Your task to perform on an android device: Is it going to rain today? Image 0: 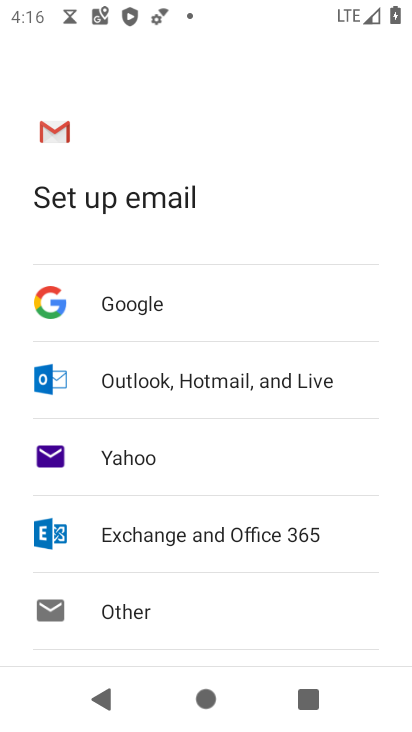
Step 0: press home button
Your task to perform on an android device: Is it going to rain today? Image 1: 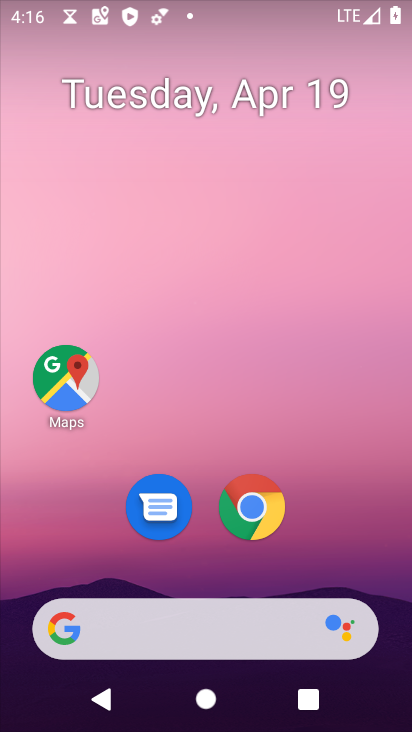
Step 1: drag from (339, 541) to (352, 120)
Your task to perform on an android device: Is it going to rain today? Image 2: 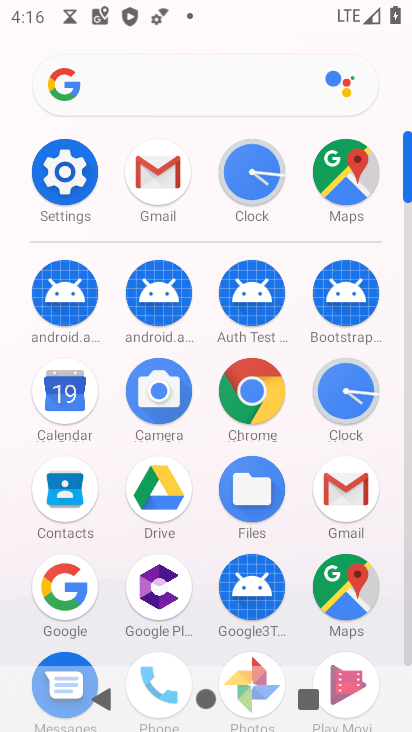
Step 2: click (225, 82)
Your task to perform on an android device: Is it going to rain today? Image 3: 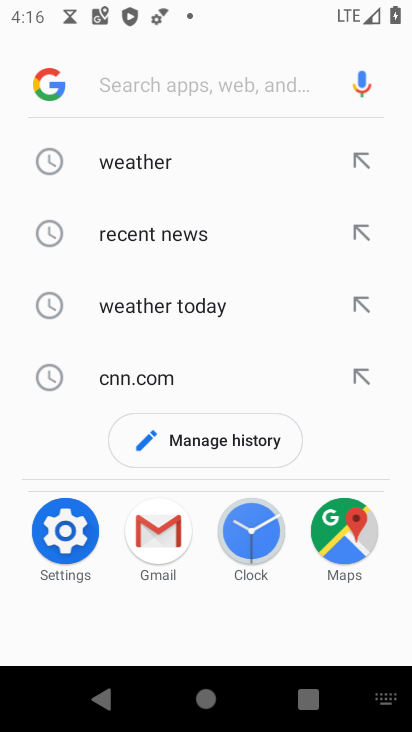
Step 3: type "is it going to rain today "
Your task to perform on an android device: Is it going to rain today? Image 4: 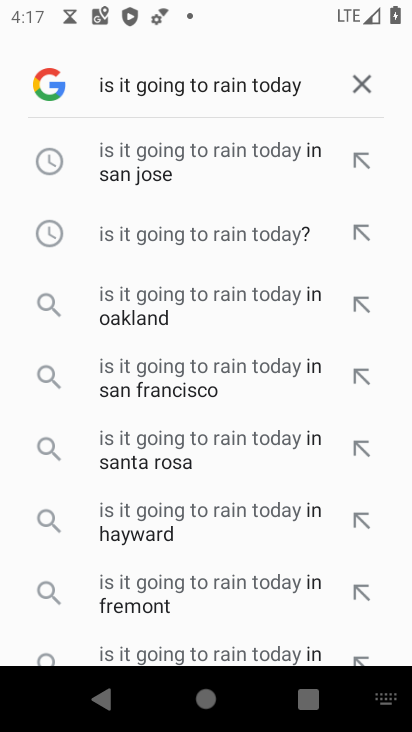
Step 4: click (210, 237)
Your task to perform on an android device: Is it going to rain today? Image 5: 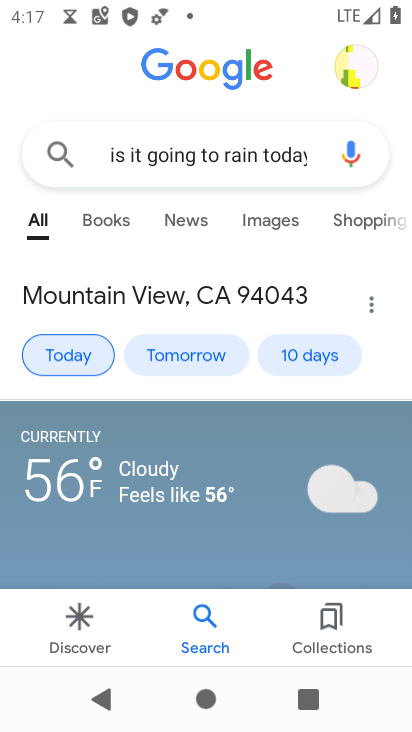
Step 5: task complete